Your task to perform on an android device: Open Google Chrome and open the bookmarks view Image 0: 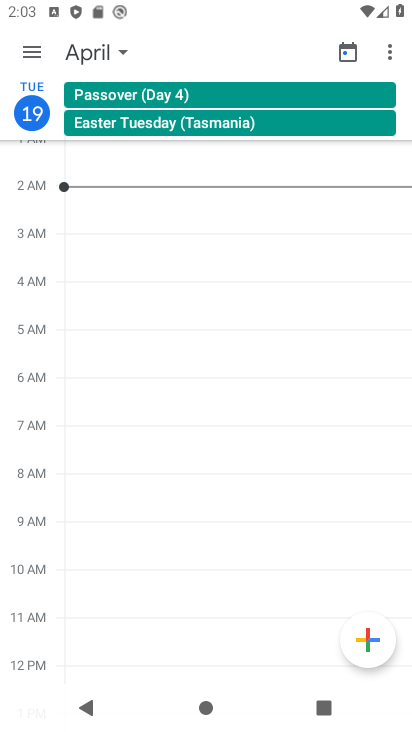
Step 0: press home button
Your task to perform on an android device: Open Google Chrome and open the bookmarks view Image 1: 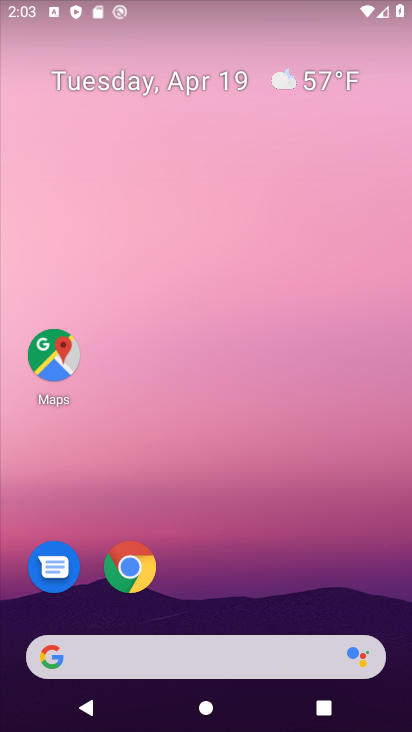
Step 1: click (129, 567)
Your task to perform on an android device: Open Google Chrome and open the bookmarks view Image 2: 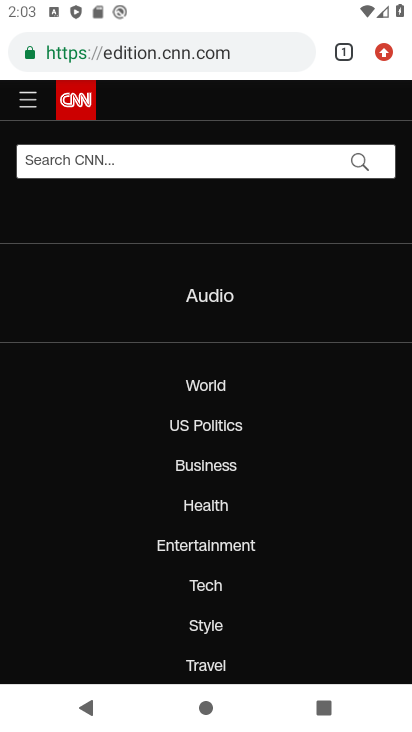
Step 2: click (382, 53)
Your task to perform on an android device: Open Google Chrome and open the bookmarks view Image 3: 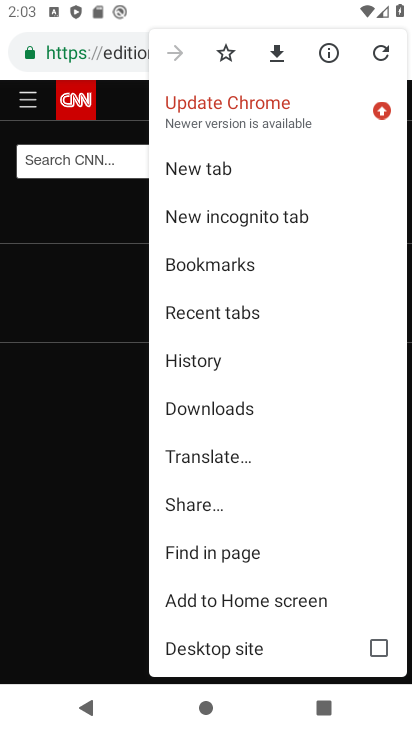
Step 3: click (208, 263)
Your task to perform on an android device: Open Google Chrome and open the bookmarks view Image 4: 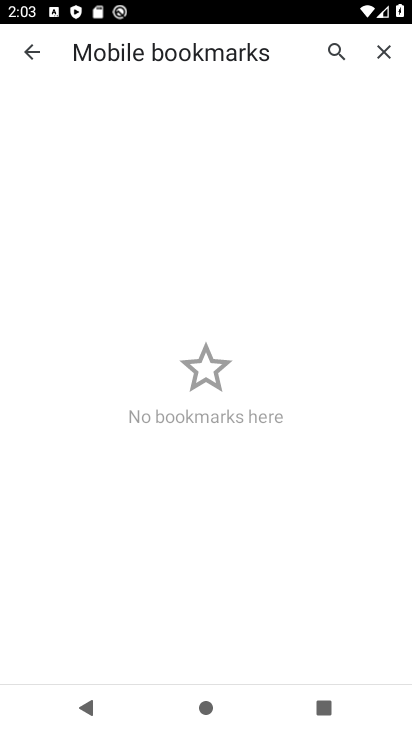
Step 4: task complete